Your task to perform on an android device: turn off airplane mode Image 0: 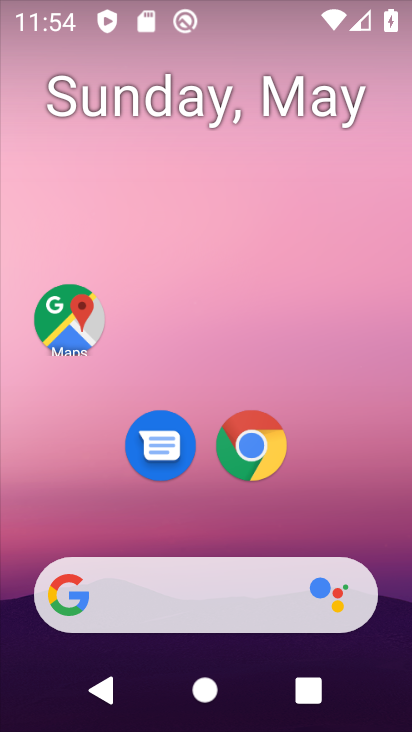
Step 0: drag from (296, 10) to (253, 530)
Your task to perform on an android device: turn off airplane mode Image 1: 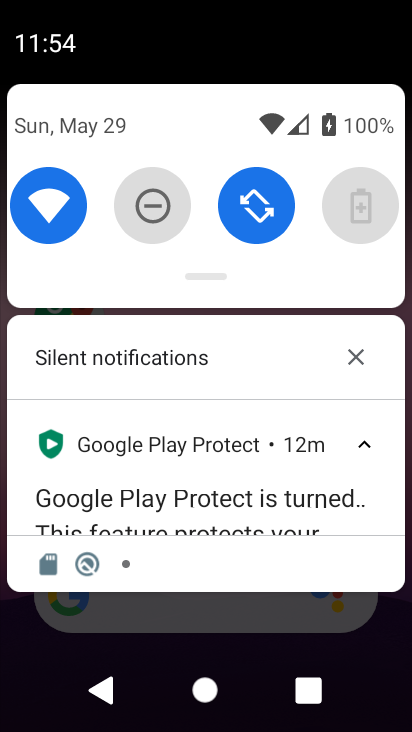
Step 1: task complete